Your task to perform on an android device: toggle wifi Image 0: 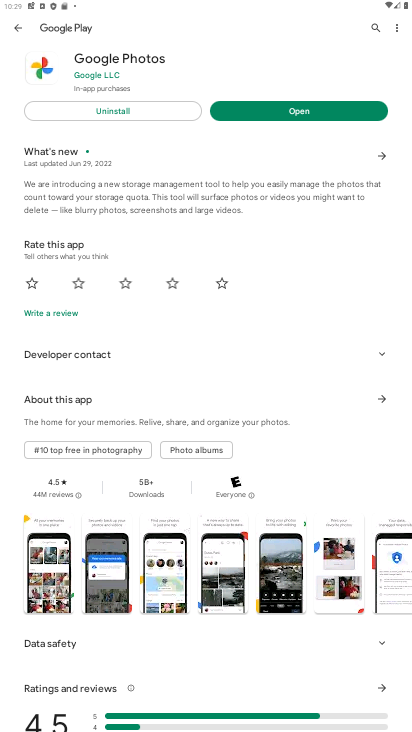
Step 0: press home button
Your task to perform on an android device: toggle wifi Image 1: 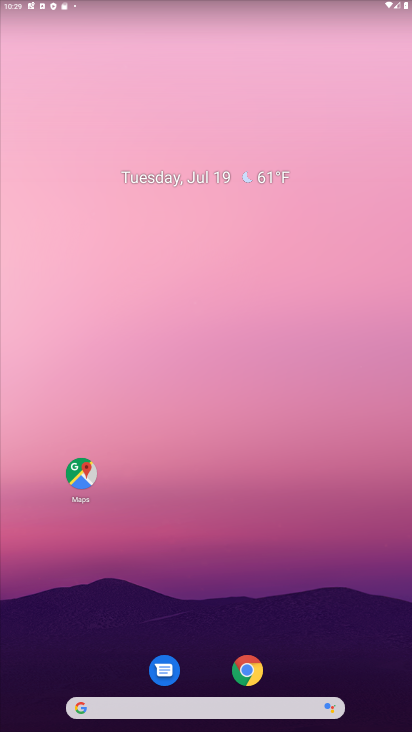
Step 1: drag from (188, 653) to (222, 58)
Your task to perform on an android device: toggle wifi Image 2: 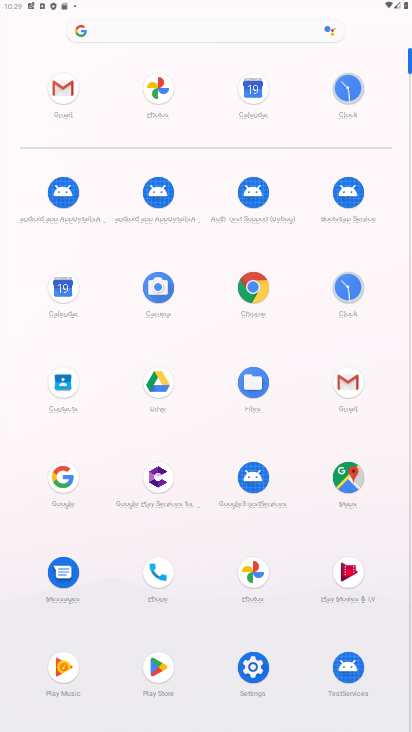
Step 2: click (262, 661)
Your task to perform on an android device: toggle wifi Image 3: 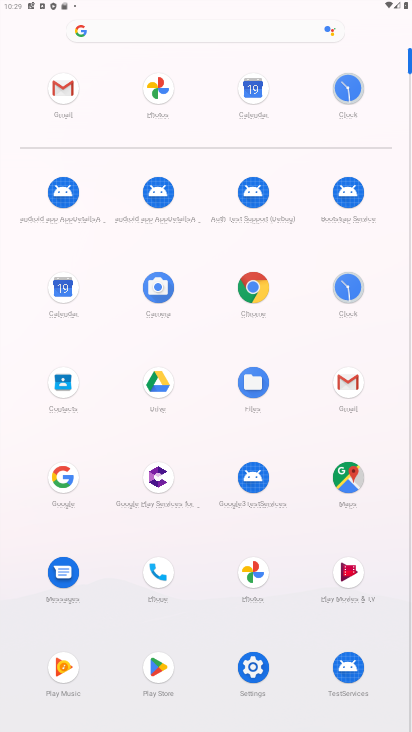
Step 3: click (262, 661)
Your task to perform on an android device: toggle wifi Image 4: 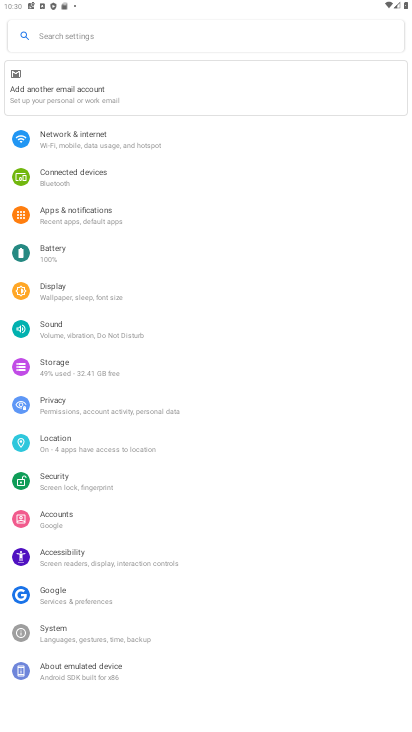
Step 4: click (90, 144)
Your task to perform on an android device: toggle wifi Image 5: 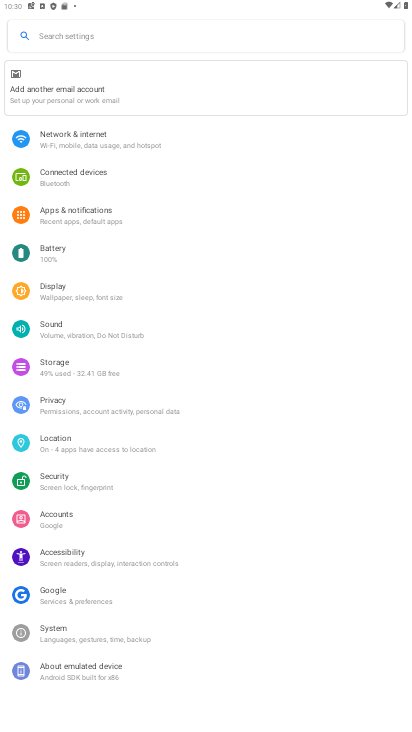
Step 5: click (90, 144)
Your task to perform on an android device: toggle wifi Image 6: 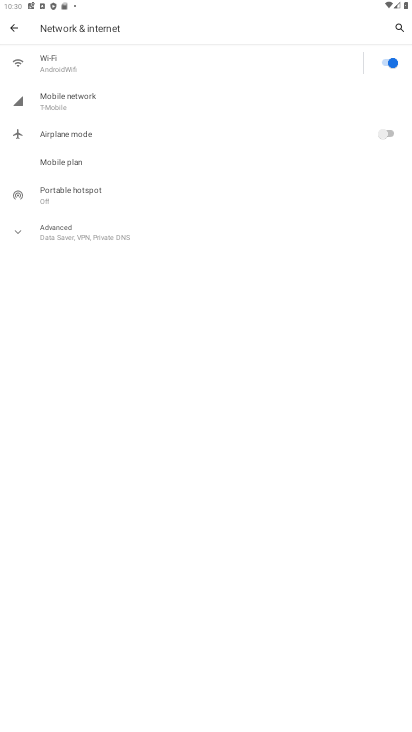
Step 6: click (394, 56)
Your task to perform on an android device: toggle wifi Image 7: 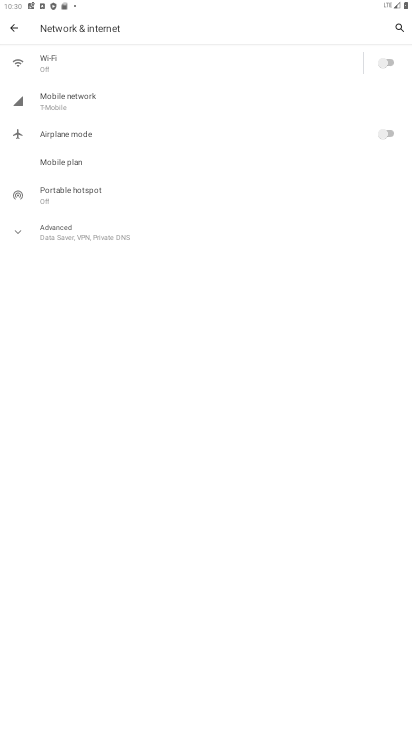
Step 7: task complete